Your task to perform on an android device: toggle improve location accuracy Image 0: 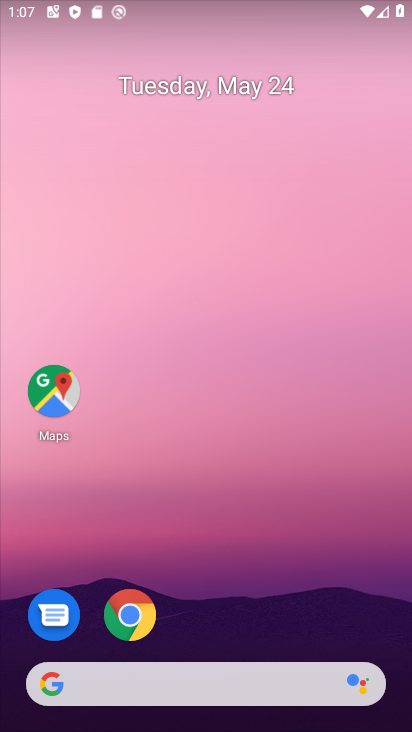
Step 0: drag from (226, 609) to (349, 34)
Your task to perform on an android device: toggle improve location accuracy Image 1: 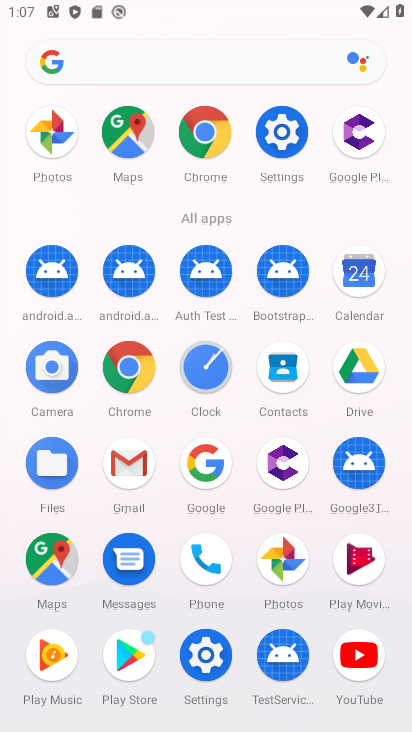
Step 1: click (283, 133)
Your task to perform on an android device: toggle improve location accuracy Image 2: 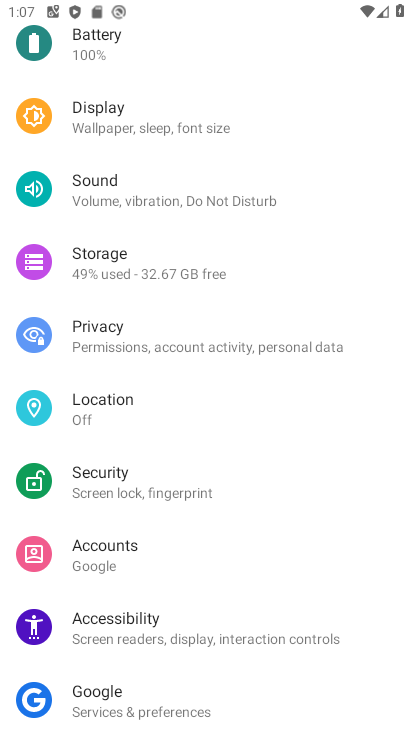
Step 2: click (133, 414)
Your task to perform on an android device: toggle improve location accuracy Image 3: 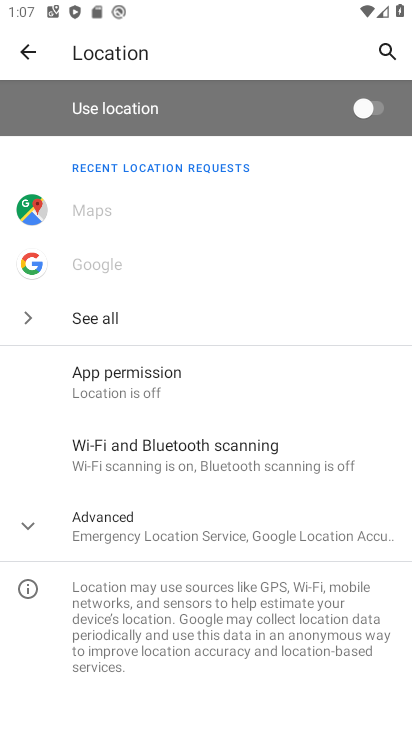
Step 3: click (129, 550)
Your task to perform on an android device: toggle improve location accuracy Image 4: 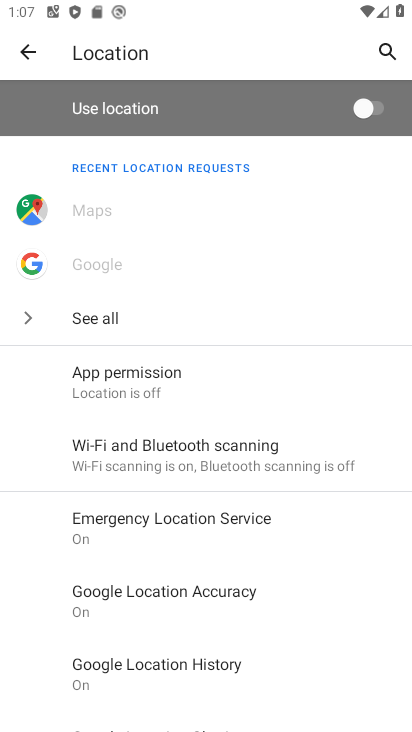
Step 4: click (230, 594)
Your task to perform on an android device: toggle improve location accuracy Image 5: 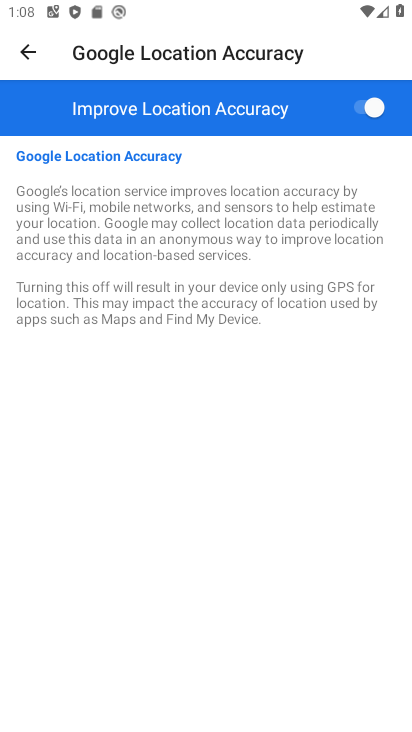
Step 5: click (365, 116)
Your task to perform on an android device: toggle improve location accuracy Image 6: 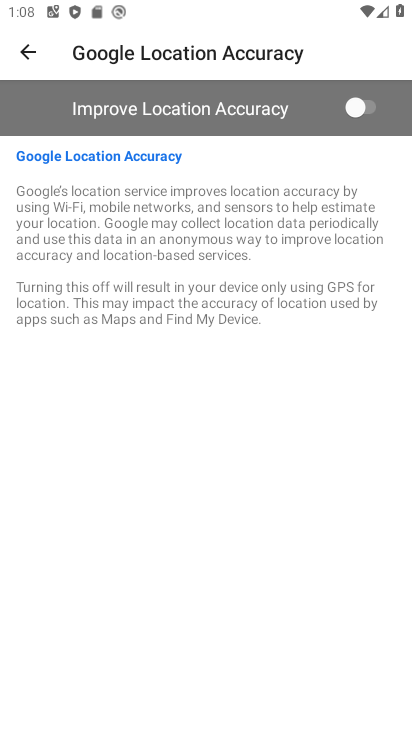
Step 6: task complete